Your task to perform on an android device: search for starred emails in the gmail app Image 0: 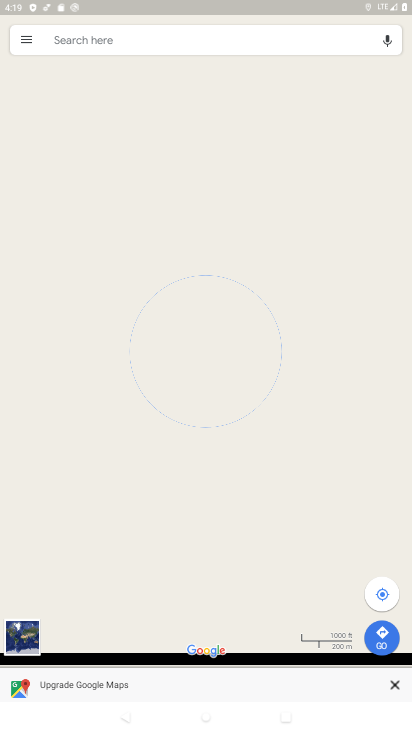
Step 0: press home button
Your task to perform on an android device: search for starred emails in the gmail app Image 1: 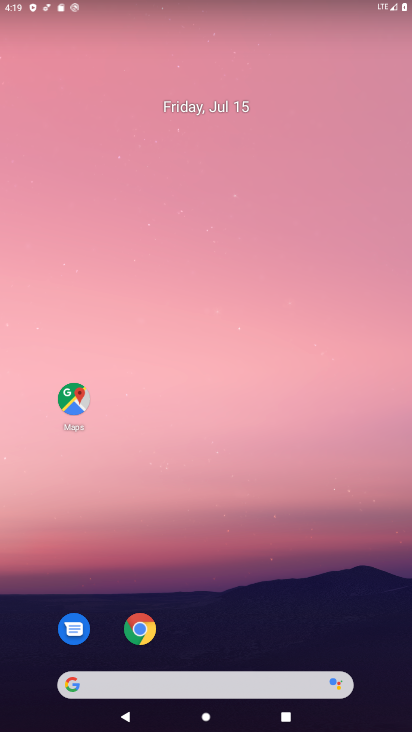
Step 1: drag from (185, 633) to (188, 52)
Your task to perform on an android device: search for starred emails in the gmail app Image 2: 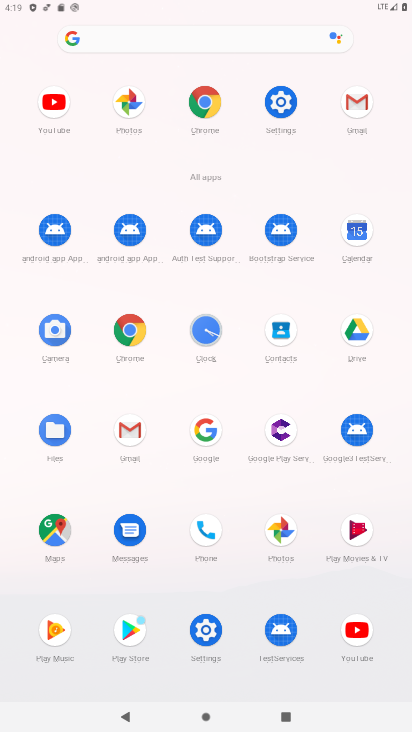
Step 2: click (355, 117)
Your task to perform on an android device: search for starred emails in the gmail app Image 3: 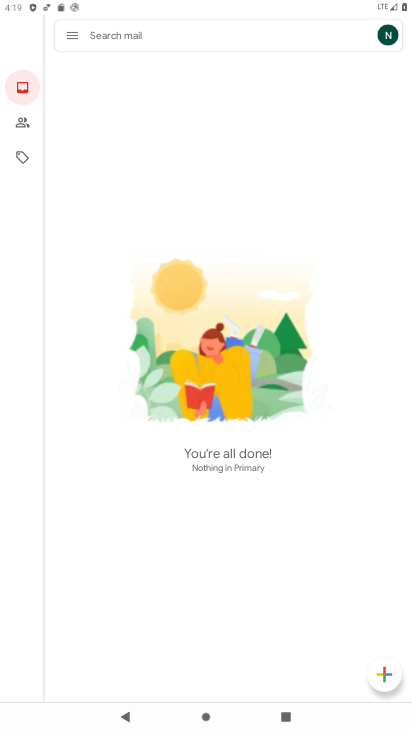
Step 3: click (69, 33)
Your task to perform on an android device: search for starred emails in the gmail app Image 4: 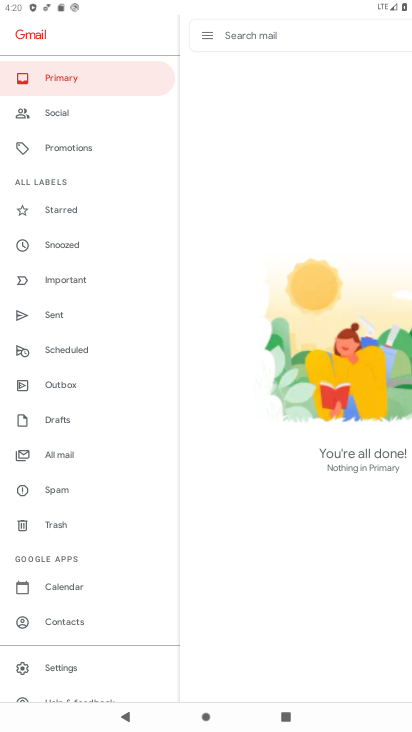
Step 4: click (67, 206)
Your task to perform on an android device: search for starred emails in the gmail app Image 5: 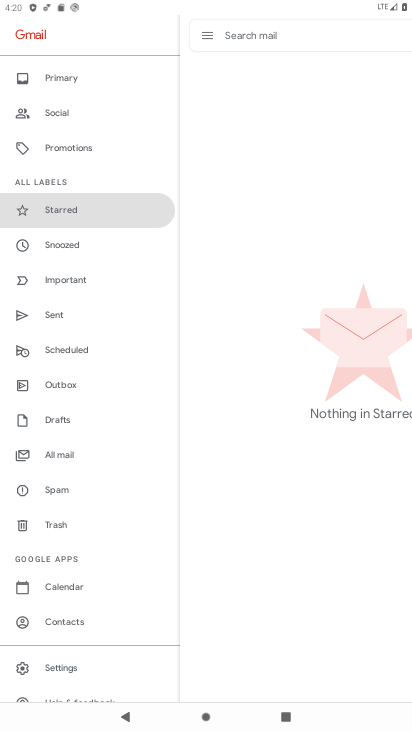
Step 5: task complete